Your task to perform on an android device: What's the weather today? Image 0: 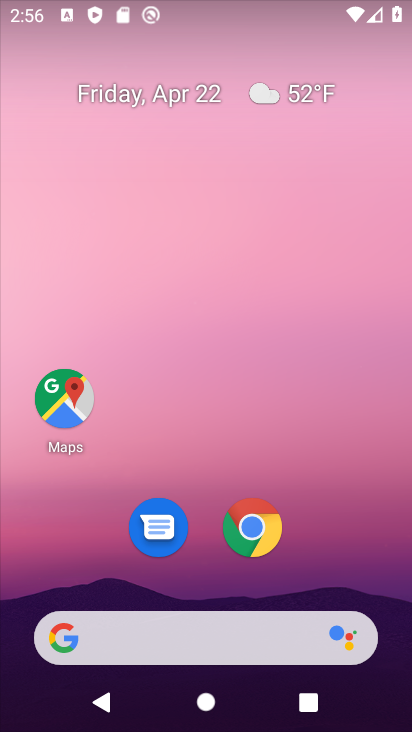
Step 0: drag from (308, 563) to (367, 82)
Your task to perform on an android device: What's the weather today? Image 1: 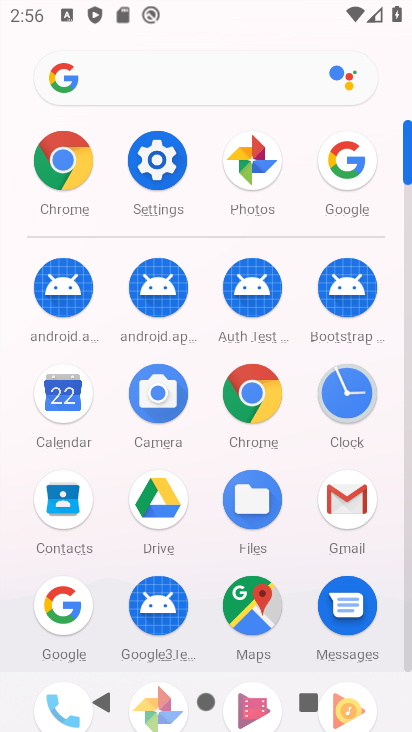
Step 1: click (369, 162)
Your task to perform on an android device: What's the weather today? Image 2: 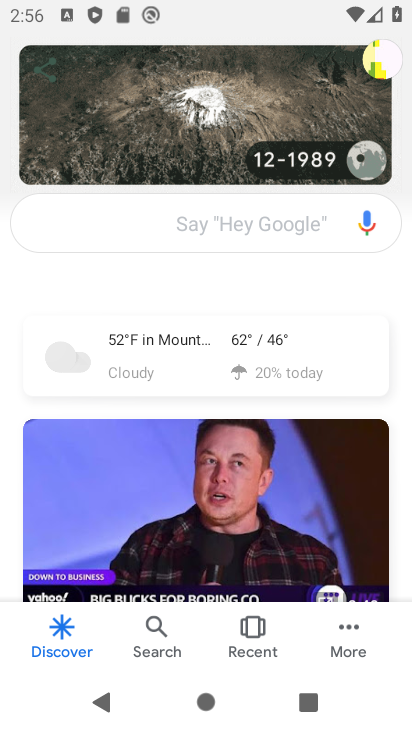
Step 2: click (188, 346)
Your task to perform on an android device: What's the weather today? Image 3: 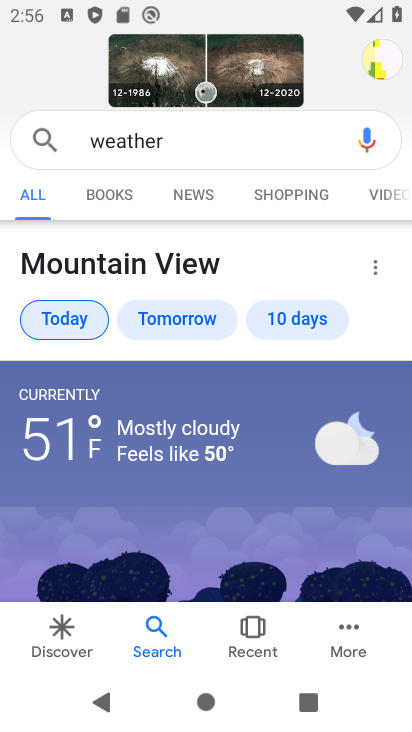
Step 3: task complete